Your task to perform on an android device: turn pop-ups on in chrome Image 0: 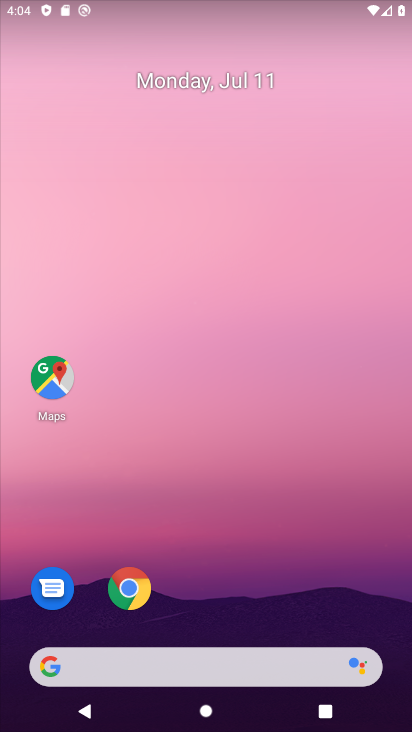
Step 0: click (144, 591)
Your task to perform on an android device: turn pop-ups on in chrome Image 1: 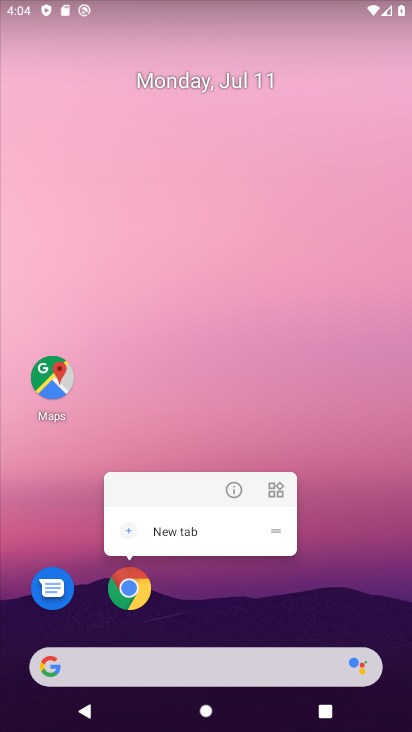
Step 1: click (129, 585)
Your task to perform on an android device: turn pop-ups on in chrome Image 2: 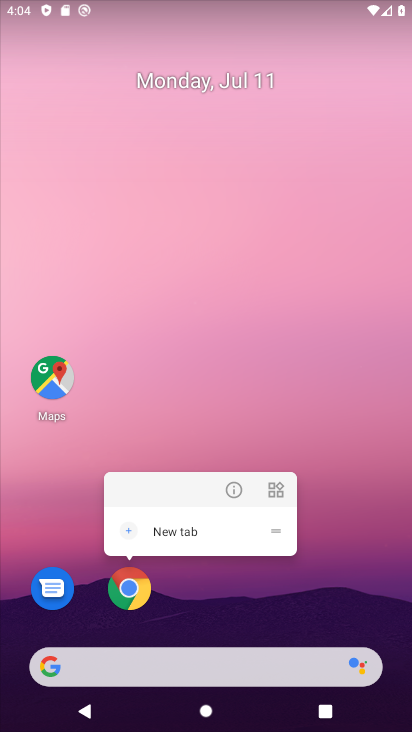
Step 2: click (129, 585)
Your task to perform on an android device: turn pop-ups on in chrome Image 3: 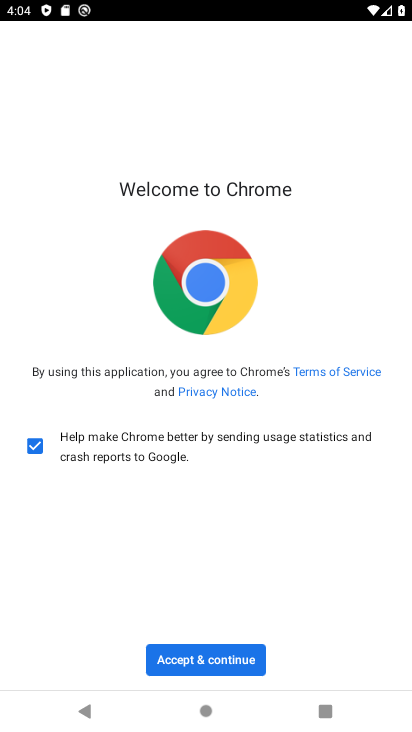
Step 3: click (223, 664)
Your task to perform on an android device: turn pop-ups on in chrome Image 4: 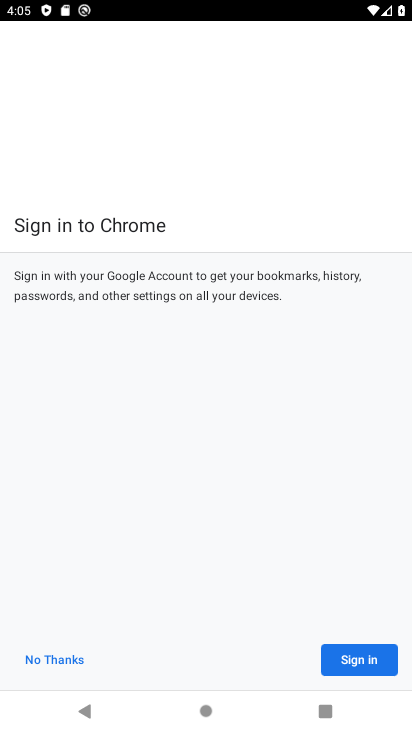
Step 4: click (385, 653)
Your task to perform on an android device: turn pop-ups on in chrome Image 5: 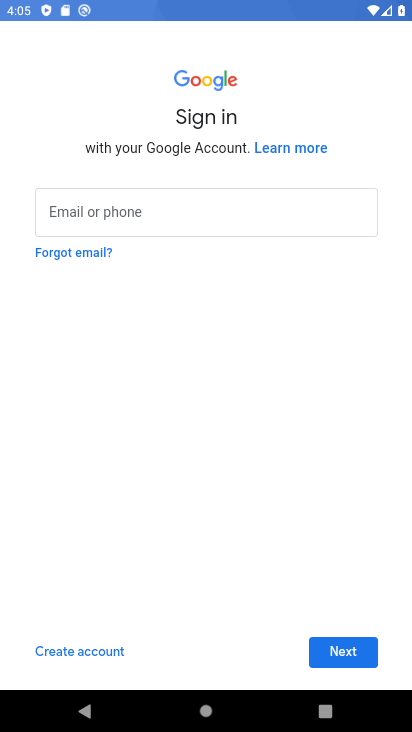
Step 5: click (317, 653)
Your task to perform on an android device: turn pop-ups on in chrome Image 6: 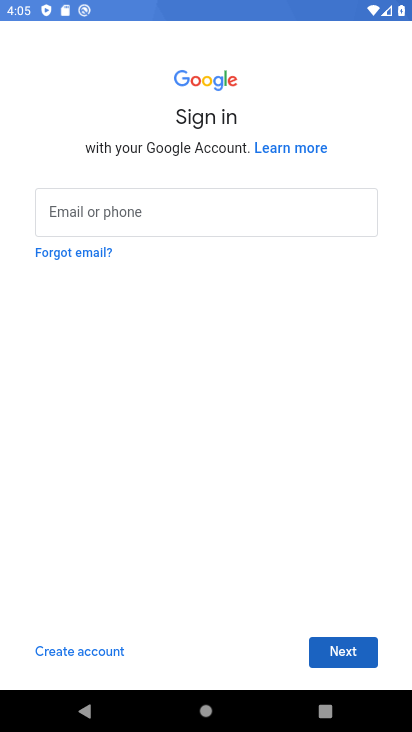
Step 6: click (368, 655)
Your task to perform on an android device: turn pop-ups on in chrome Image 7: 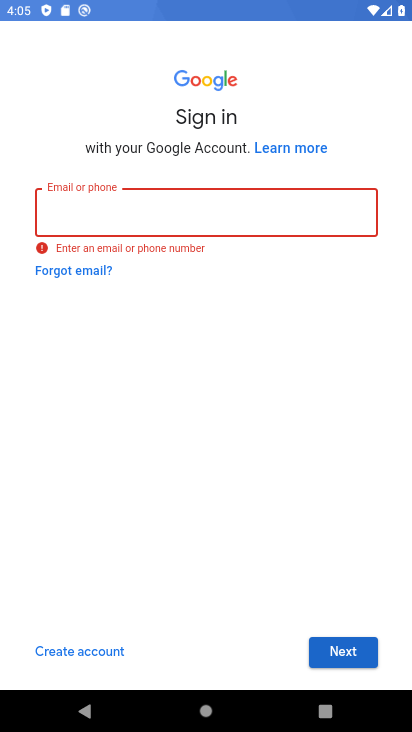
Step 7: click (367, 655)
Your task to perform on an android device: turn pop-ups on in chrome Image 8: 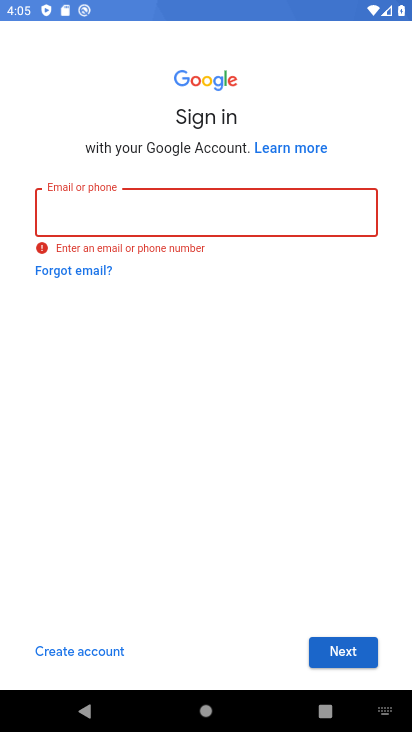
Step 8: task complete